Your task to perform on an android device: turn notification dots on Image 0: 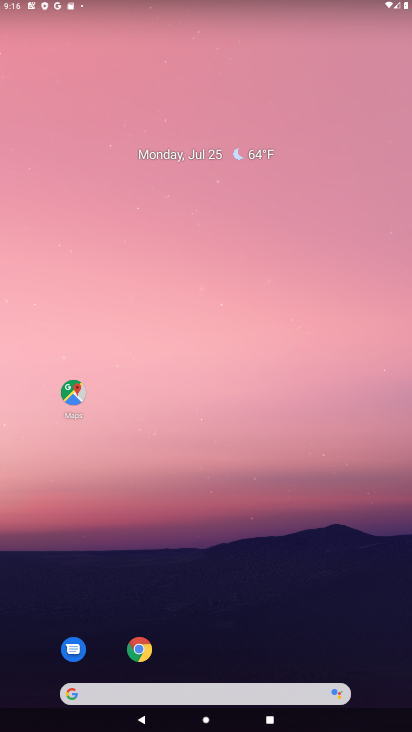
Step 0: drag from (284, 655) to (153, 148)
Your task to perform on an android device: turn notification dots on Image 1: 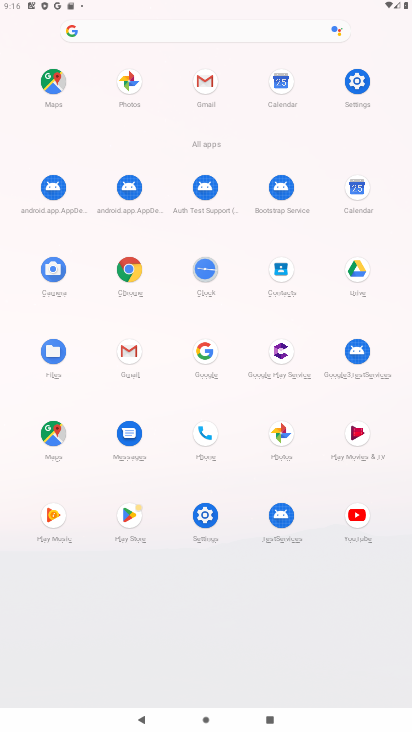
Step 1: click (217, 522)
Your task to perform on an android device: turn notification dots on Image 2: 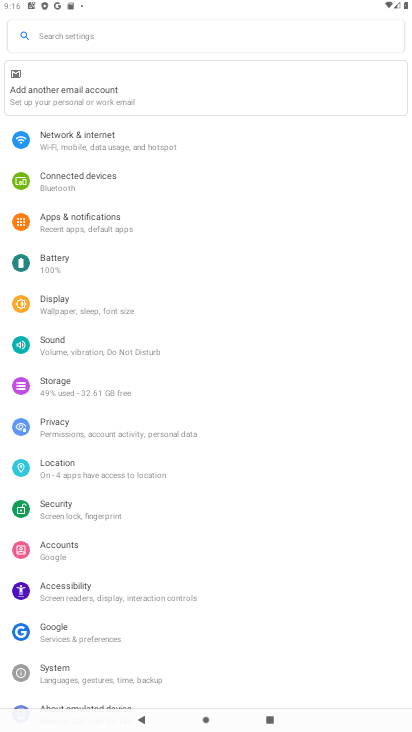
Step 2: click (130, 224)
Your task to perform on an android device: turn notification dots on Image 3: 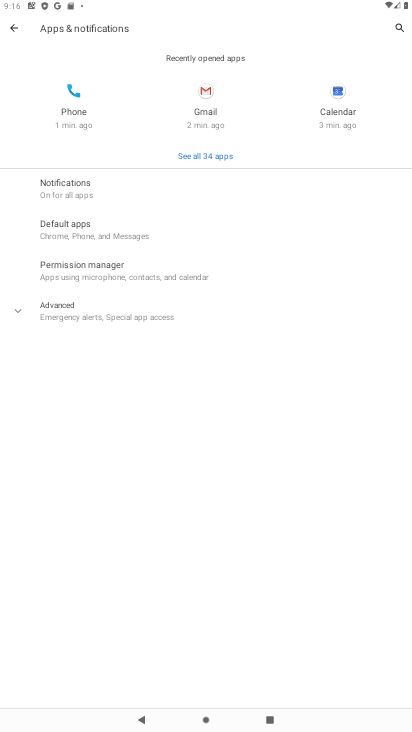
Step 3: click (76, 193)
Your task to perform on an android device: turn notification dots on Image 4: 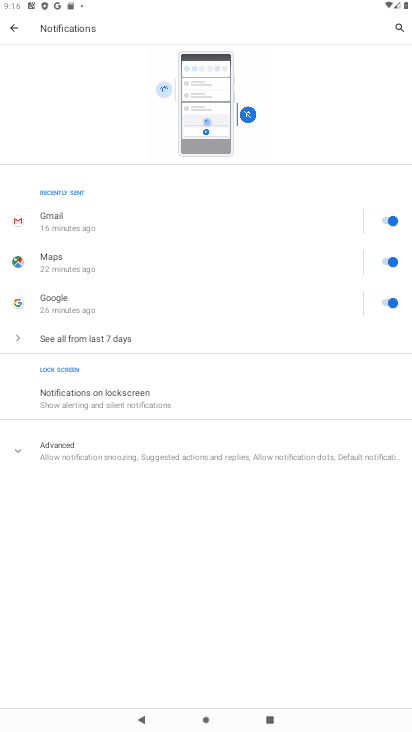
Step 4: click (139, 448)
Your task to perform on an android device: turn notification dots on Image 5: 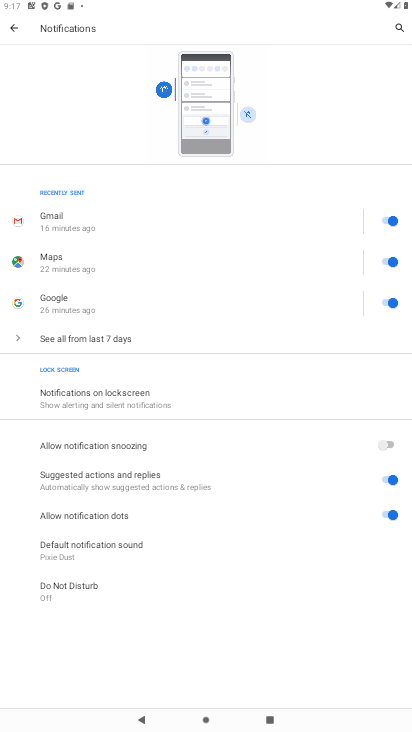
Step 5: task complete